Your task to perform on an android device: add a label to a message in the gmail app Image 0: 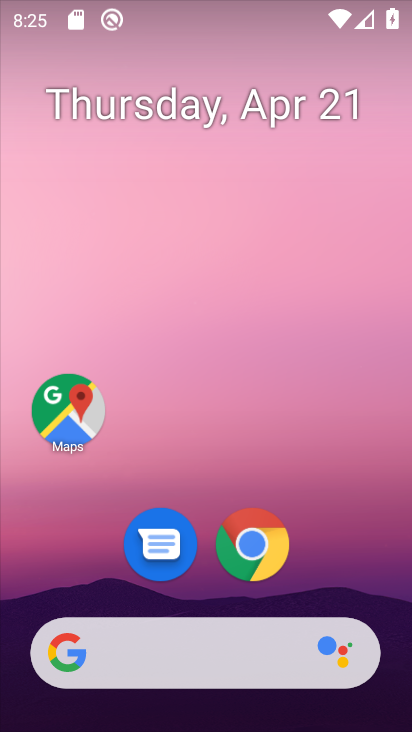
Step 0: drag from (214, 723) to (192, 147)
Your task to perform on an android device: add a label to a message in the gmail app Image 1: 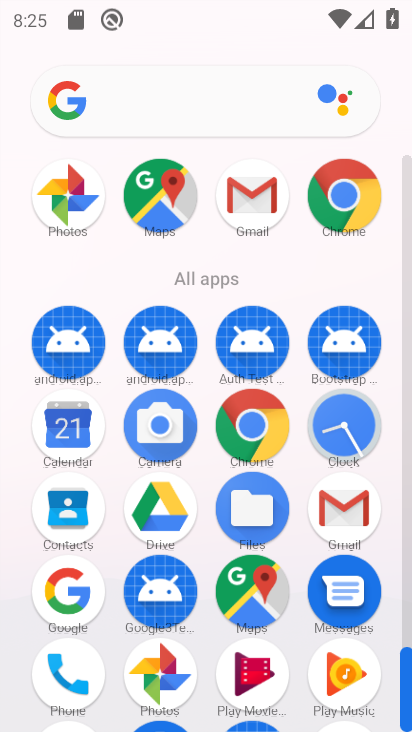
Step 1: click (340, 507)
Your task to perform on an android device: add a label to a message in the gmail app Image 2: 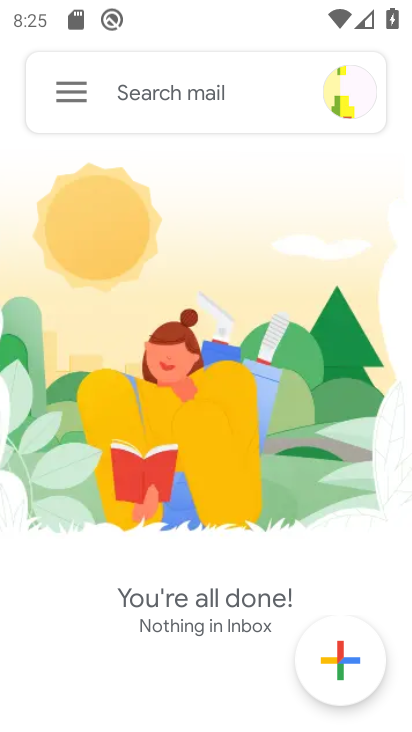
Step 2: task complete